Your task to perform on an android device: Open the web browser Image 0: 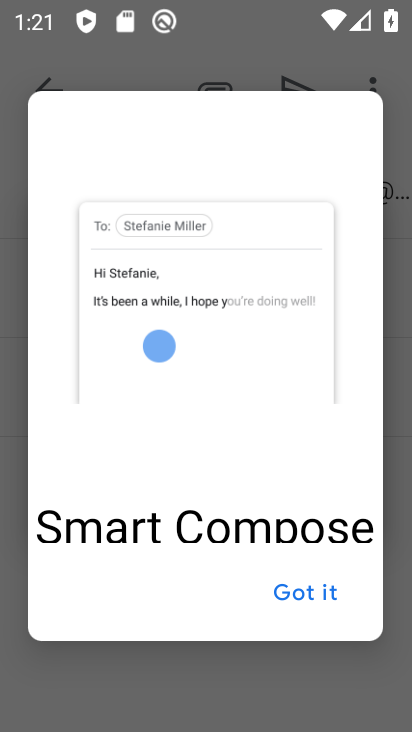
Step 0: press home button
Your task to perform on an android device: Open the web browser Image 1: 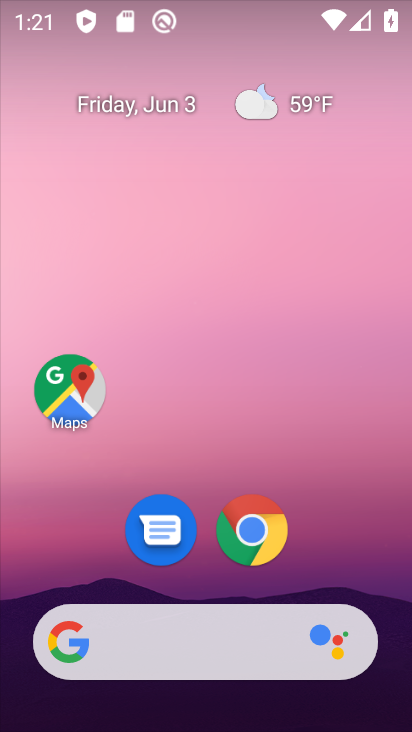
Step 1: click (252, 529)
Your task to perform on an android device: Open the web browser Image 2: 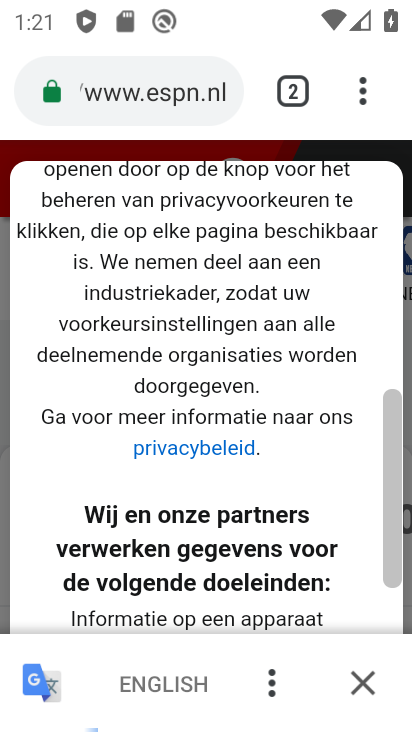
Step 2: task complete